Your task to perform on an android device: toggle show notifications on the lock screen Image 0: 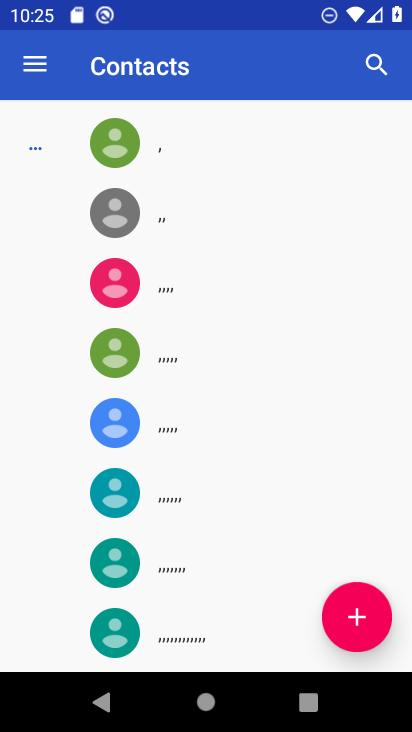
Step 0: press home button
Your task to perform on an android device: toggle show notifications on the lock screen Image 1: 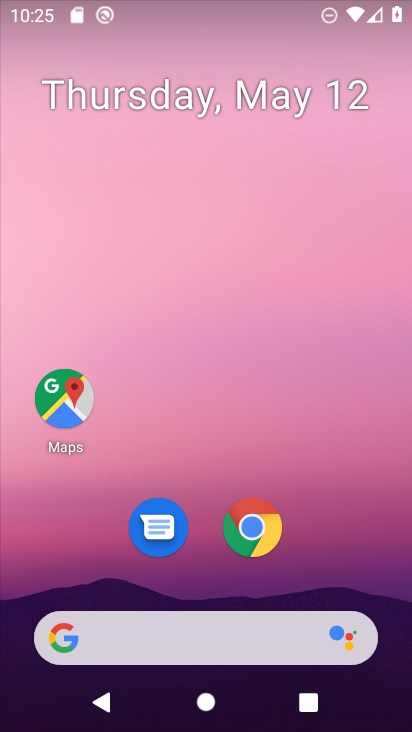
Step 1: drag from (365, 551) to (265, 92)
Your task to perform on an android device: toggle show notifications on the lock screen Image 2: 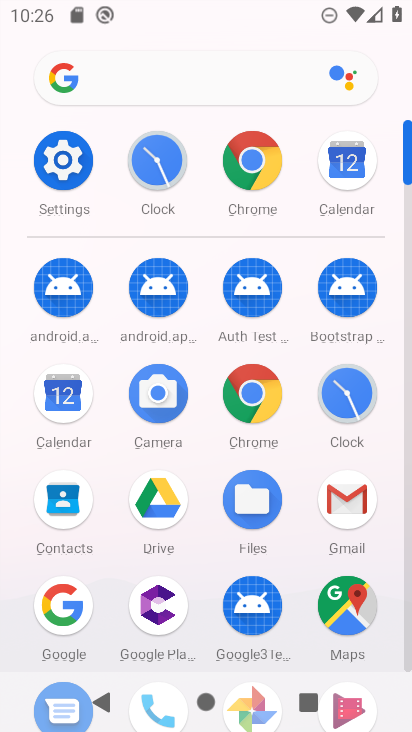
Step 2: click (45, 186)
Your task to perform on an android device: toggle show notifications on the lock screen Image 3: 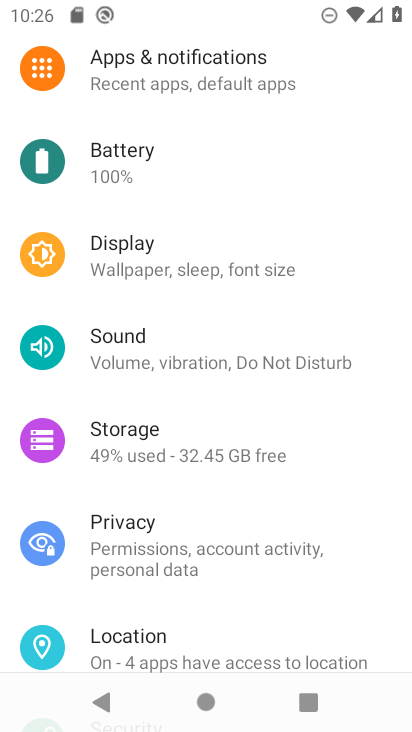
Step 3: click (232, 64)
Your task to perform on an android device: toggle show notifications on the lock screen Image 4: 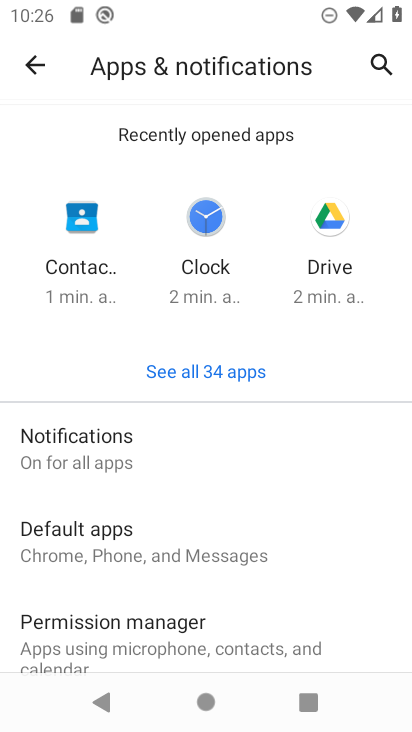
Step 4: drag from (230, 527) to (201, 302)
Your task to perform on an android device: toggle show notifications on the lock screen Image 5: 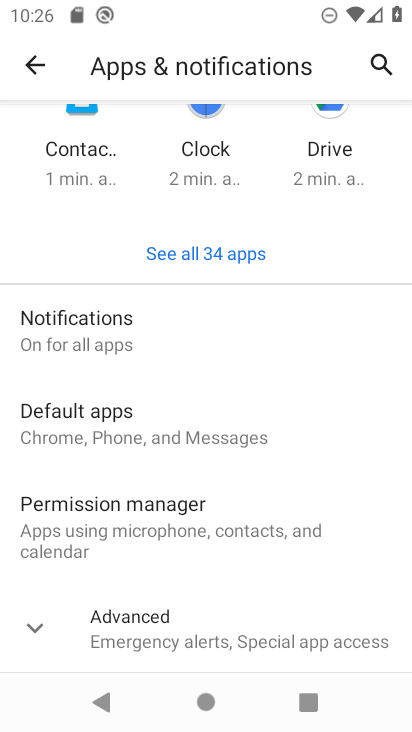
Step 5: click (207, 395)
Your task to perform on an android device: toggle show notifications on the lock screen Image 6: 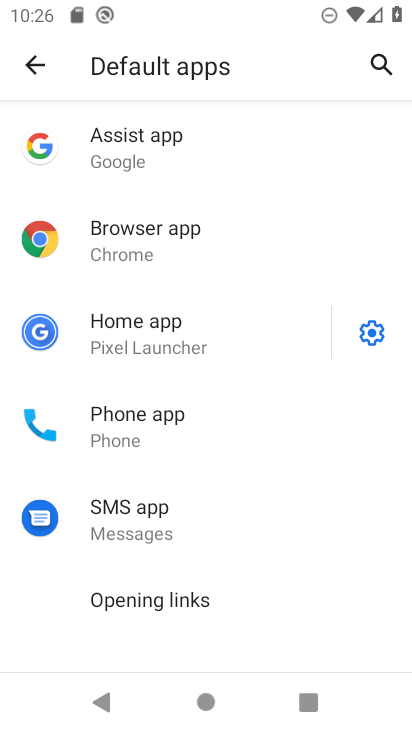
Step 6: click (45, 74)
Your task to perform on an android device: toggle show notifications on the lock screen Image 7: 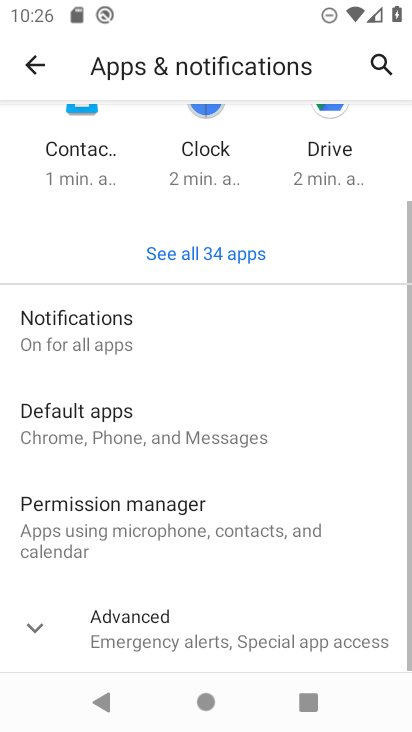
Step 7: click (198, 336)
Your task to perform on an android device: toggle show notifications on the lock screen Image 8: 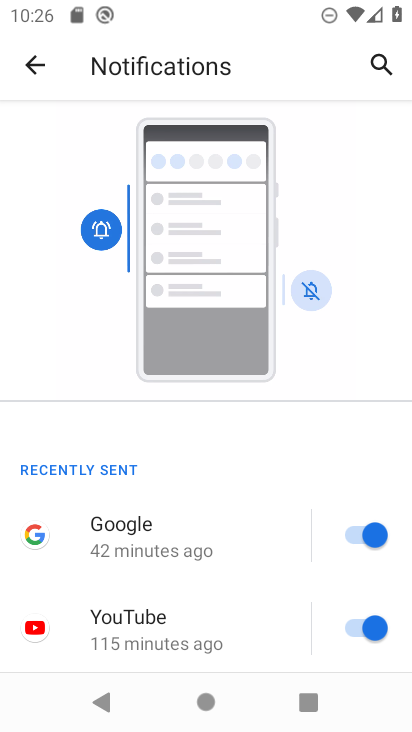
Step 8: drag from (156, 547) to (168, 311)
Your task to perform on an android device: toggle show notifications on the lock screen Image 9: 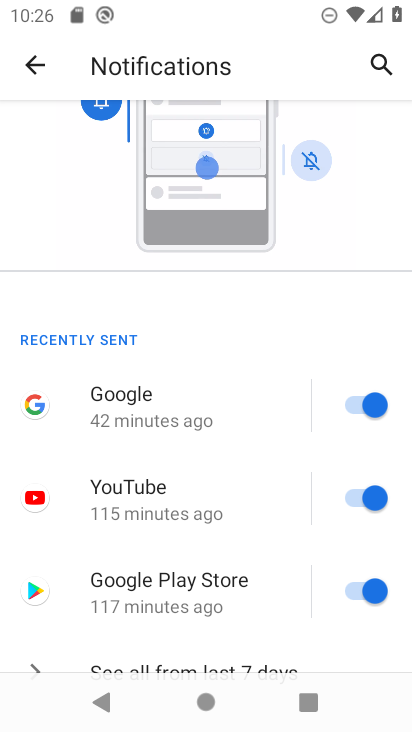
Step 9: drag from (228, 631) to (197, 407)
Your task to perform on an android device: toggle show notifications on the lock screen Image 10: 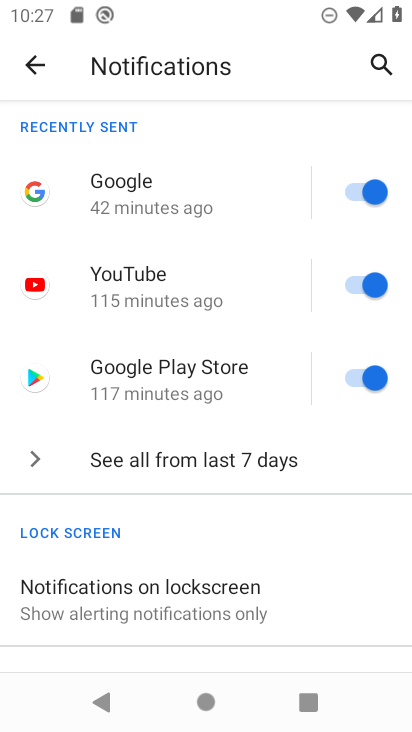
Step 10: click (196, 571)
Your task to perform on an android device: toggle show notifications on the lock screen Image 11: 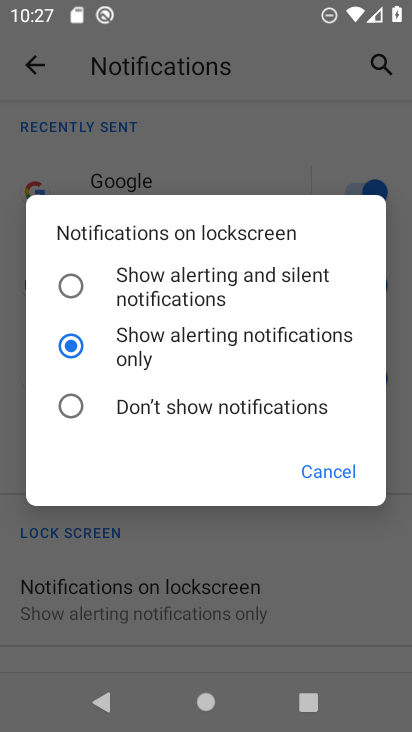
Step 11: task complete